Your task to perform on an android device: delete a single message in the gmail app Image 0: 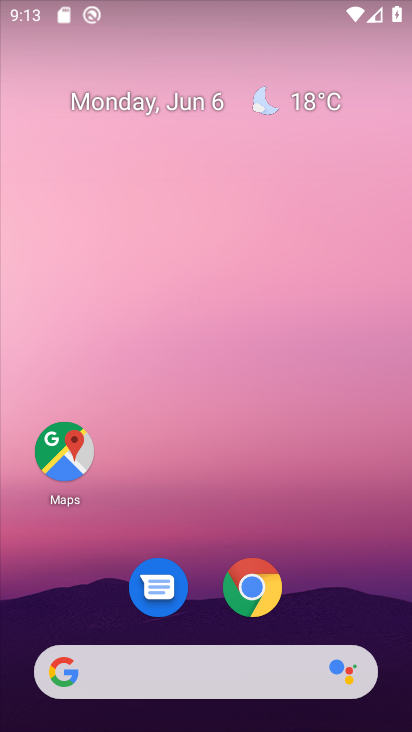
Step 0: drag from (84, 634) to (185, 151)
Your task to perform on an android device: delete a single message in the gmail app Image 1: 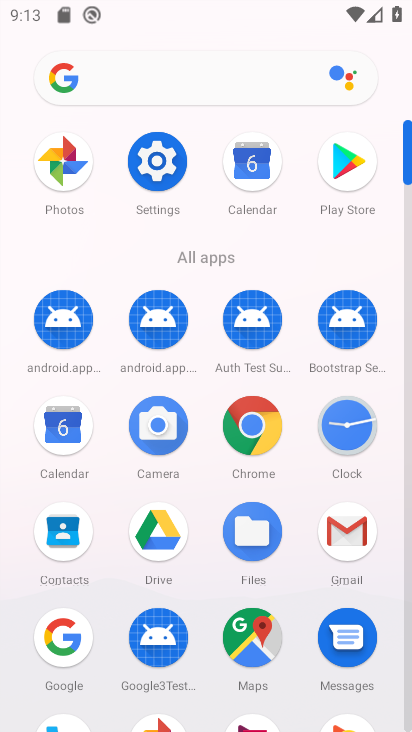
Step 1: click (341, 529)
Your task to perform on an android device: delete a single message in the gmail app Image 2: 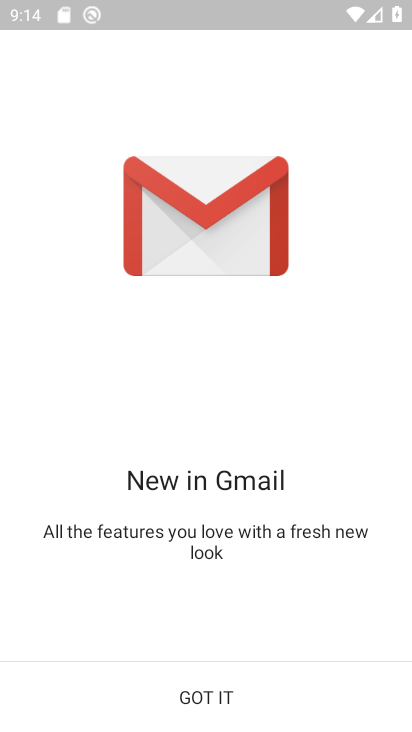
Step 2: click (265, 706)
Your task to perform on an android device: delete a single message in the gmail app Image 3: 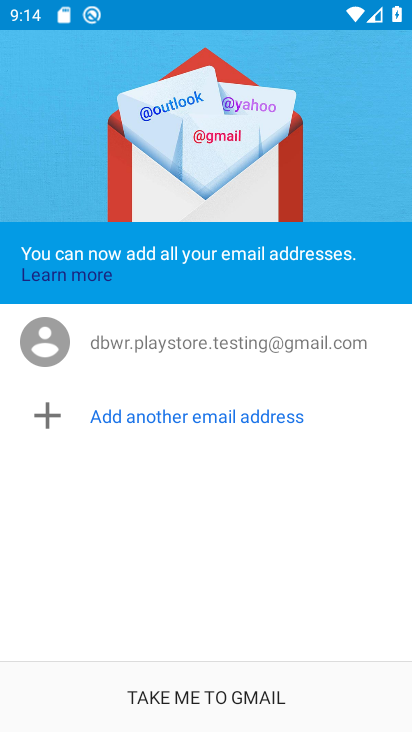
Step 3: click (265, 706)
Your task to perform on an android device: delete a single message in the gmail app Image 4: 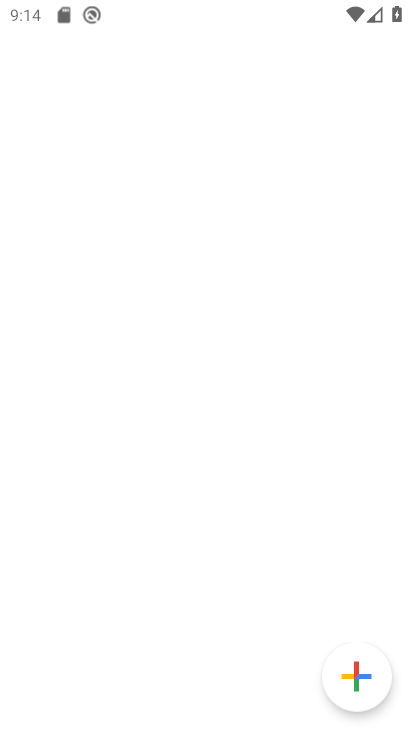
Step 4: click (265, 706)
Your task to perform on an android device: delete a single message in the gmail app Image 5: 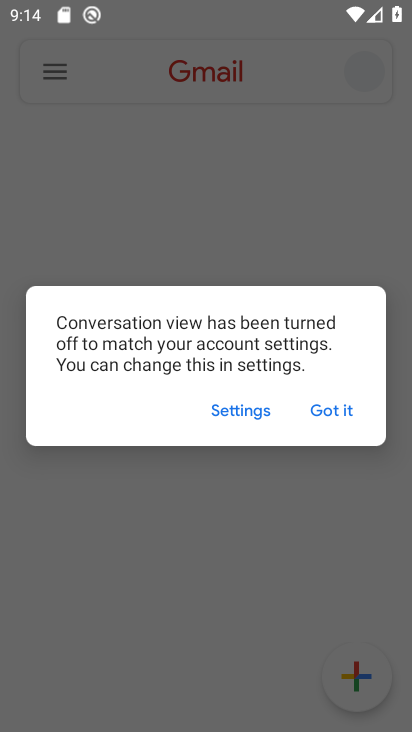
Step 5: click (348, 406)
Your task to perform on an android device: delete a single message in the gmail app Image 6: 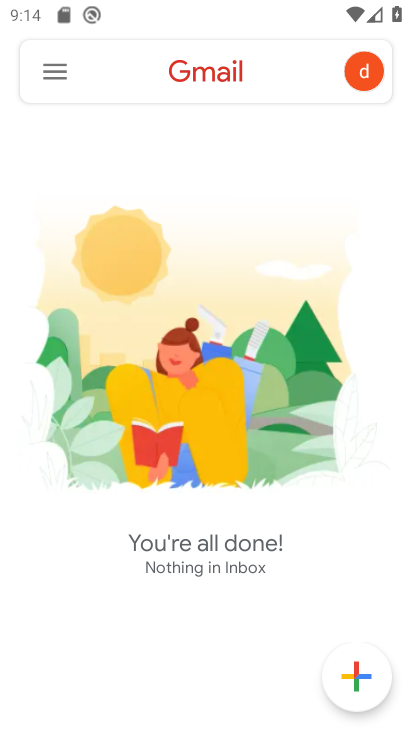
Step 6: click (53, 90)
Your task to perform on an android device: delete a single message in the gmail app Image 7: 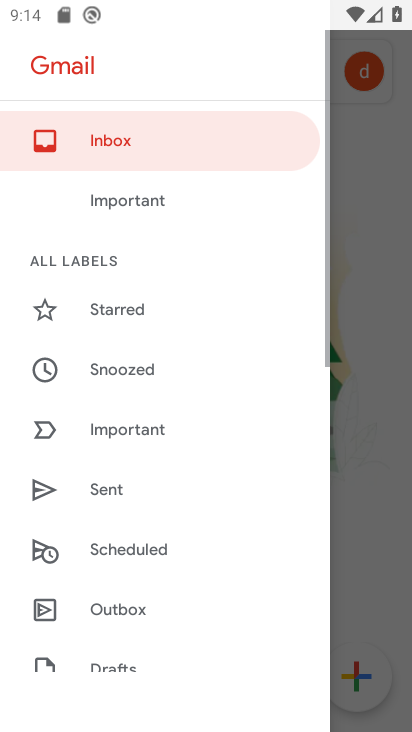
Step 7: drag from (162, 489) to (219, 263)
Your task to perform on an android device: delete a single message in the gmail app Image 8: 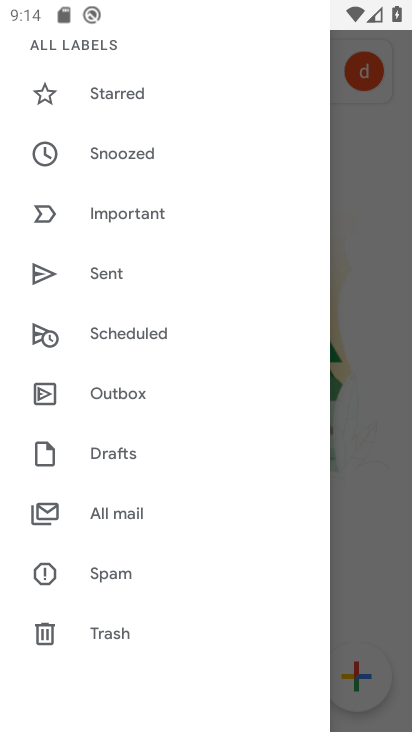
Step 8: click (178, 513)
Your task to perform on an android device: delete a single message in the gmail app Image 9: 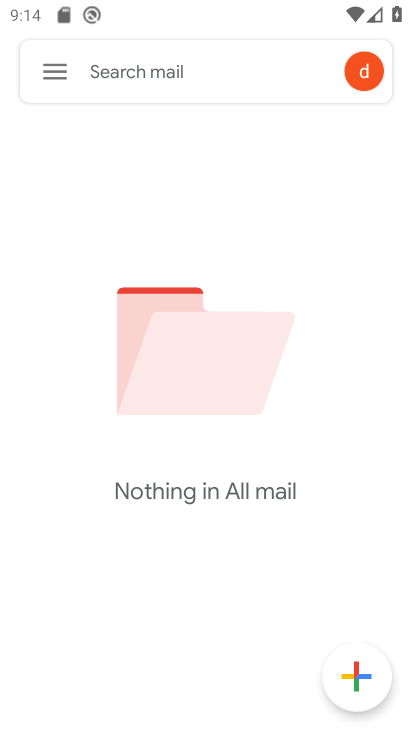
Step 9: task complete